Your task to perform on an android device: open app "Contacts" Image 0: 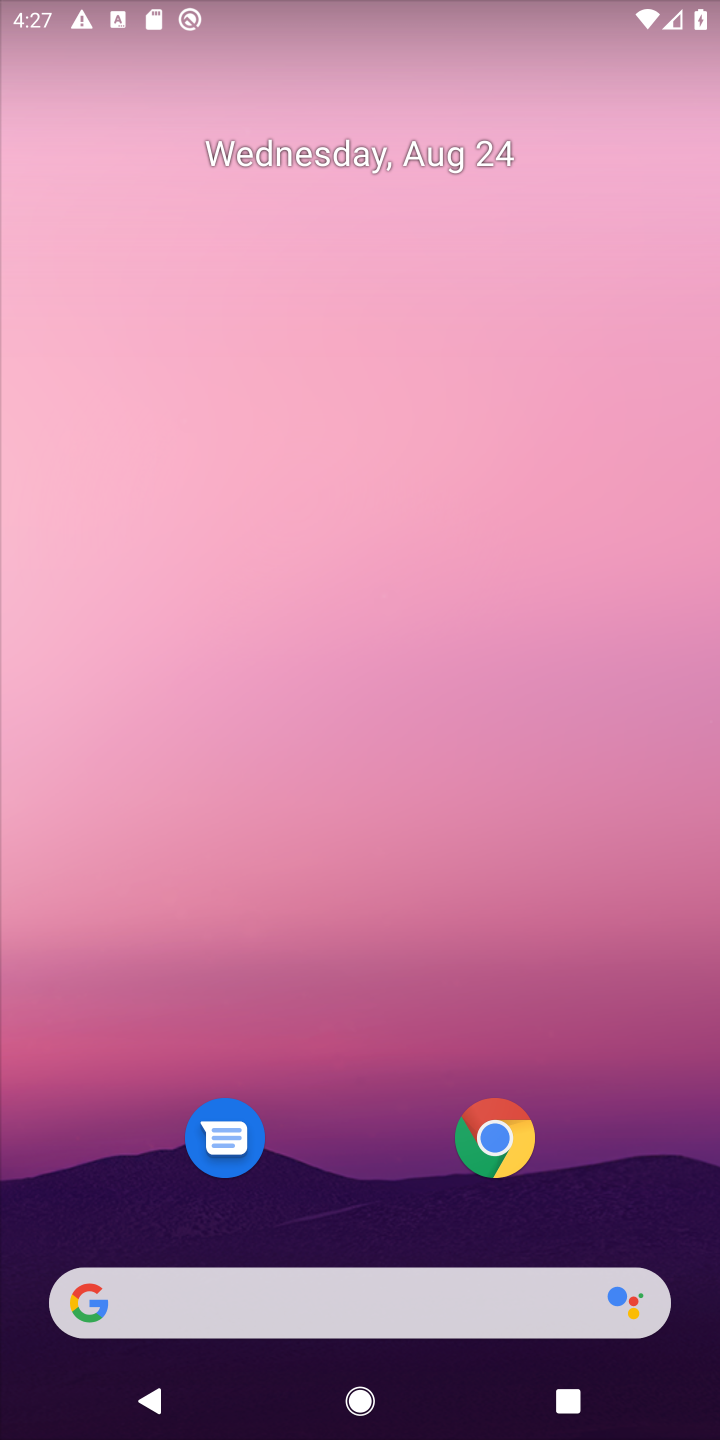
Step 0: press home button
Your task to perform on an android device: open app "Contacts" Image 1: 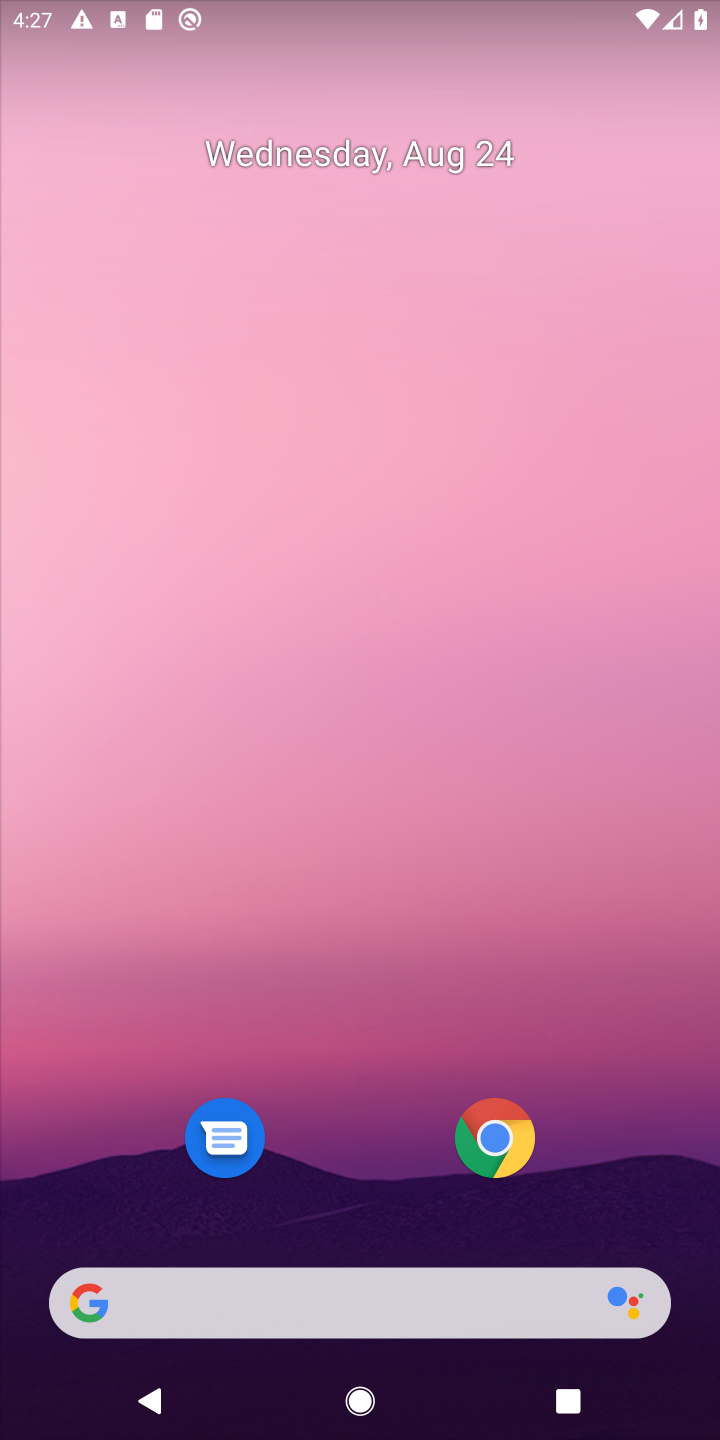
Step 1: drag from (414, 1257) to (414, 139)
Your task to perform on an android device: open app "Contacts" Image 2: 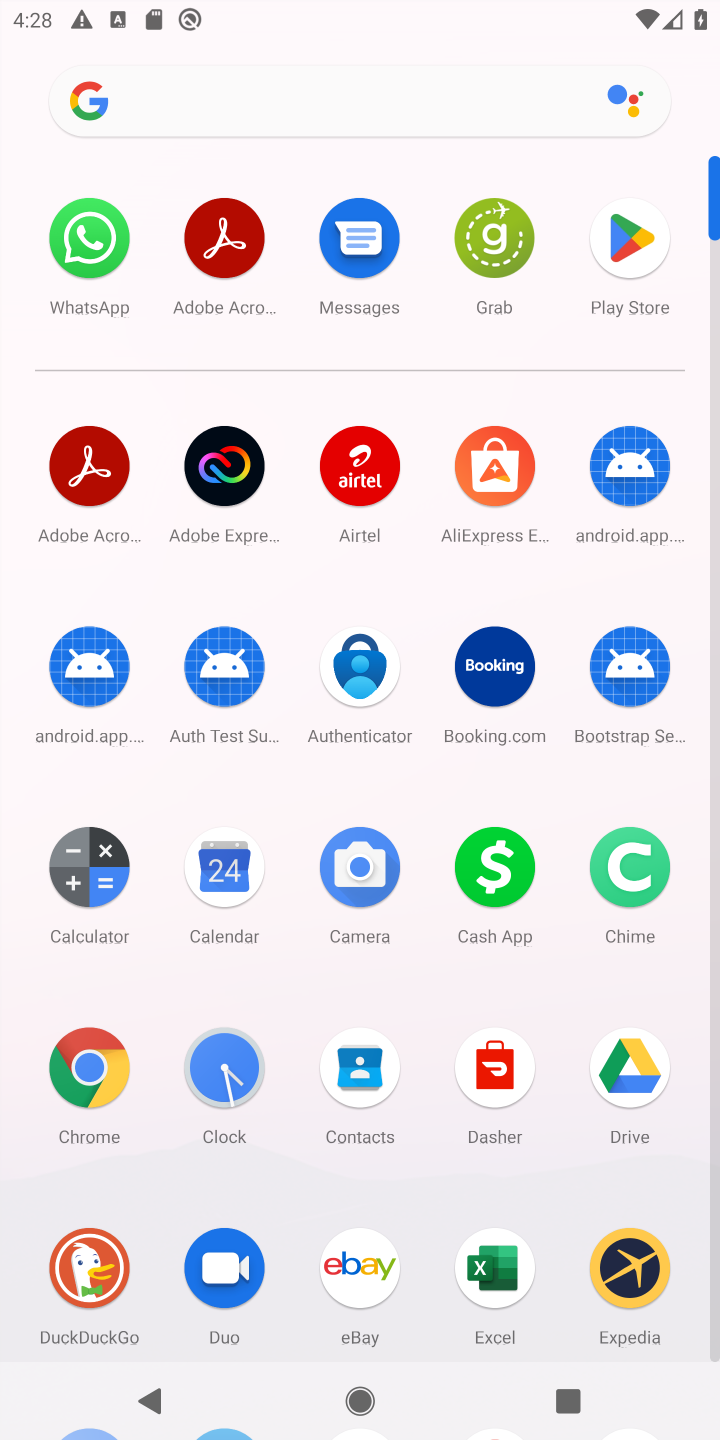
Step 2: drag from (294, 1178) to (309, 574)
Your task to perform on an android device: open app "Contacts" Image 3: 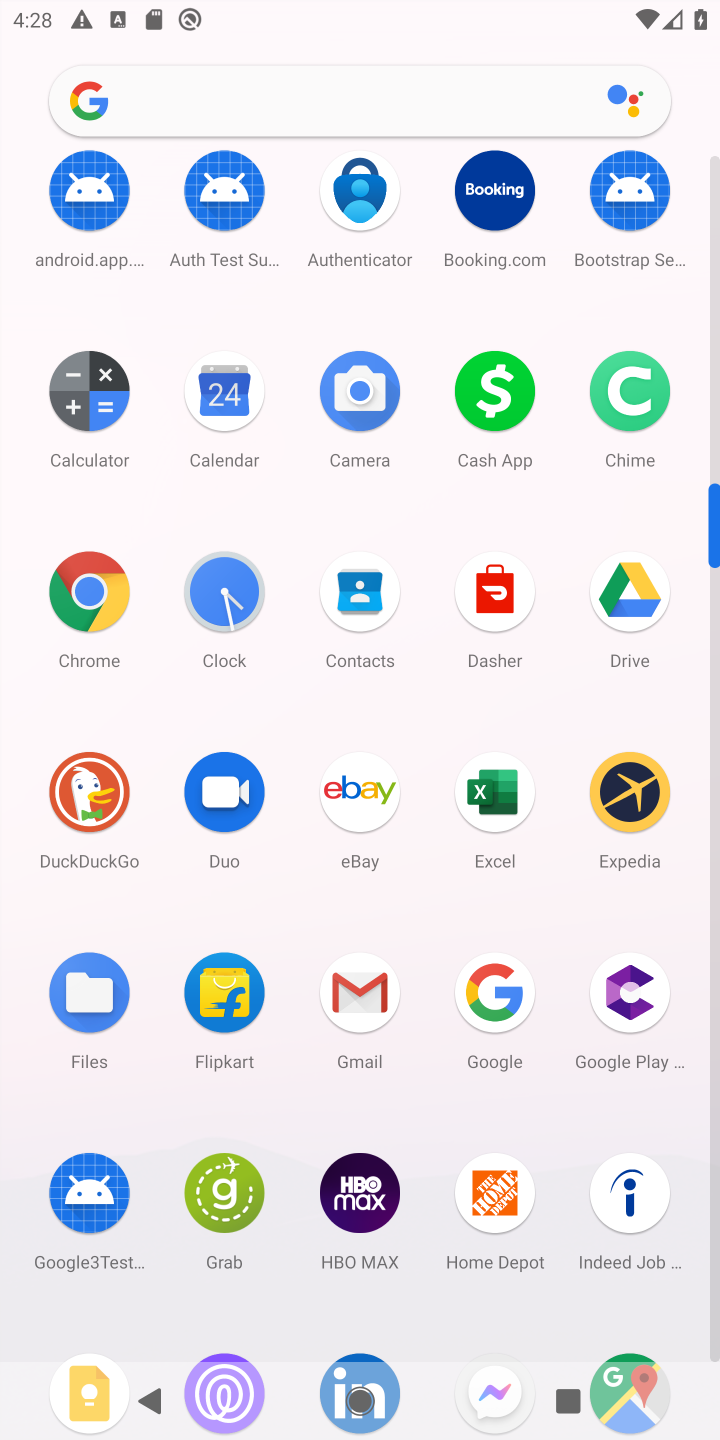
Step 3: drag from (444, 1169) to (438, 580)
Your task to perform on an android device: open app "Contacts" Image 4: 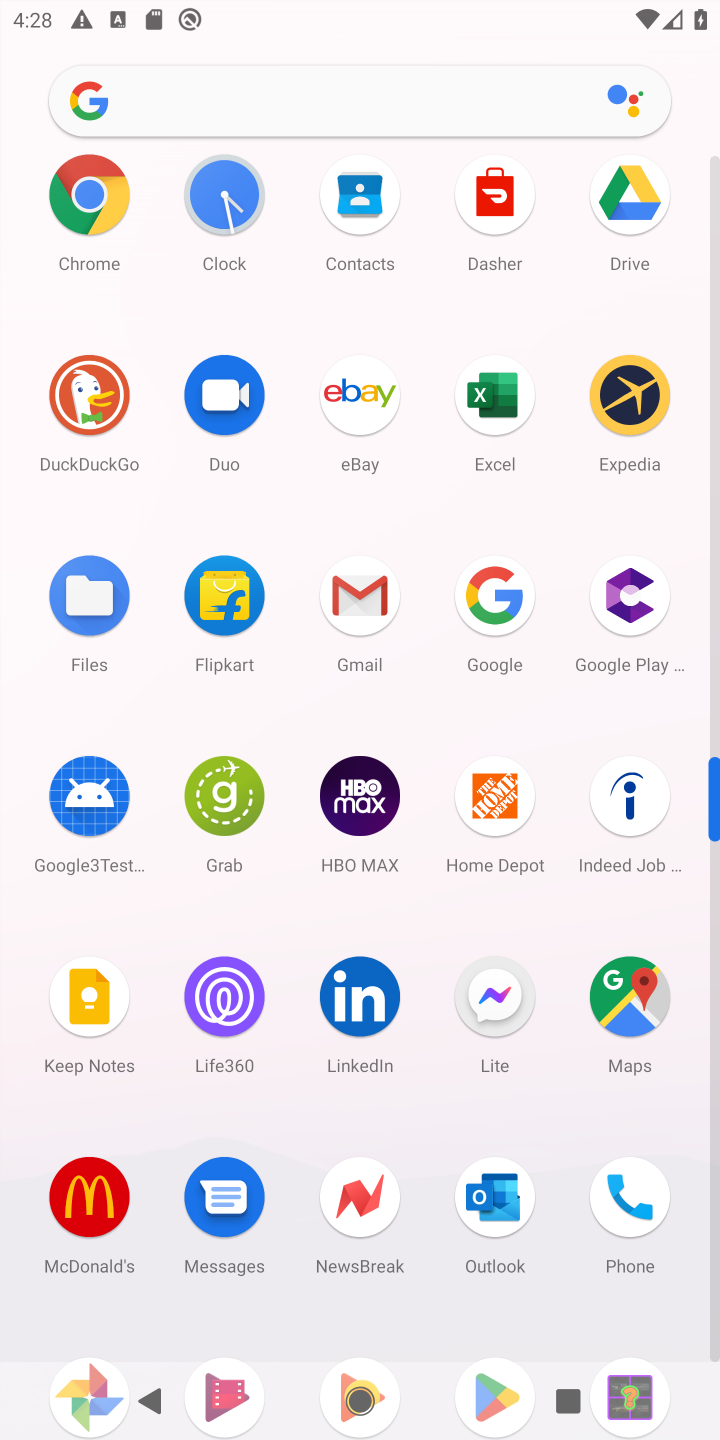
Step 4: click (364, 205)
Your task to perform on an android device: open app "Contacts" Image 5: 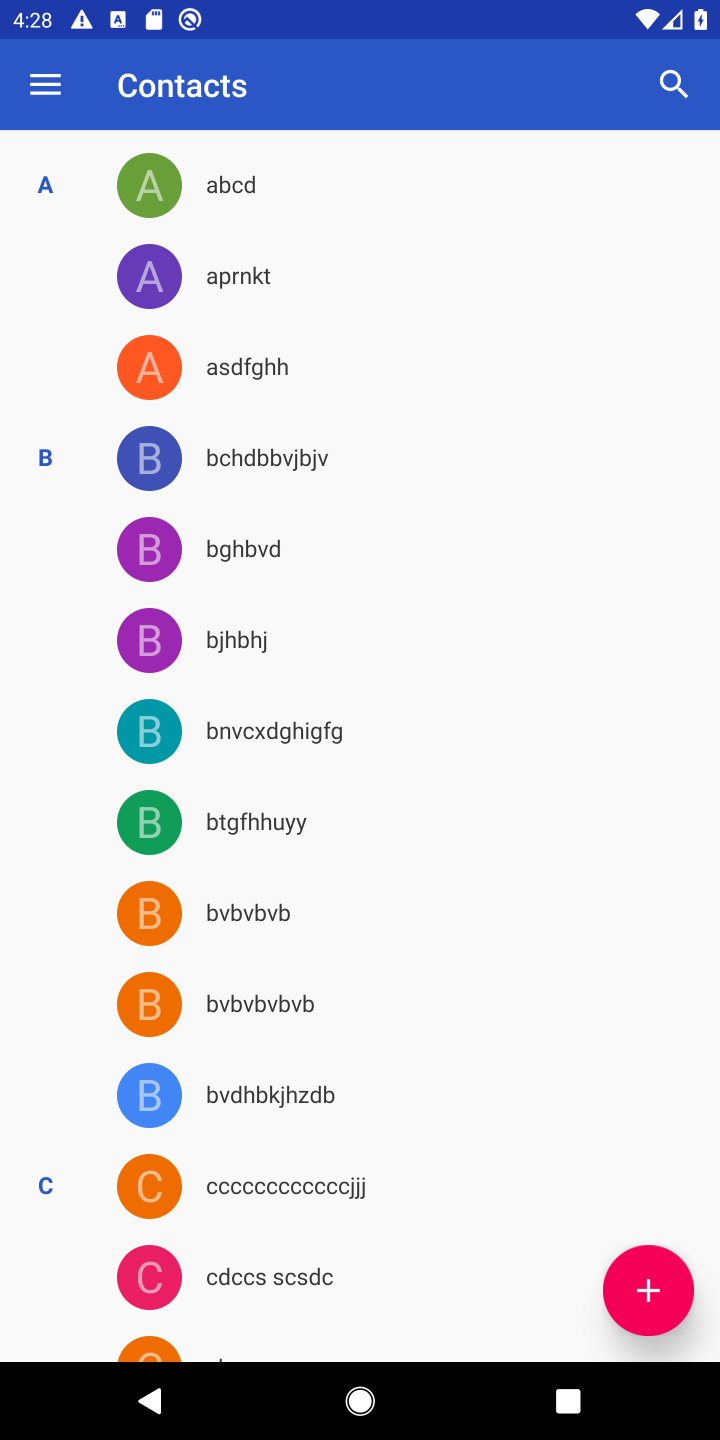
Step 5: task complete